Your task to perform on an android device: uninstall "Clock" Image 0: 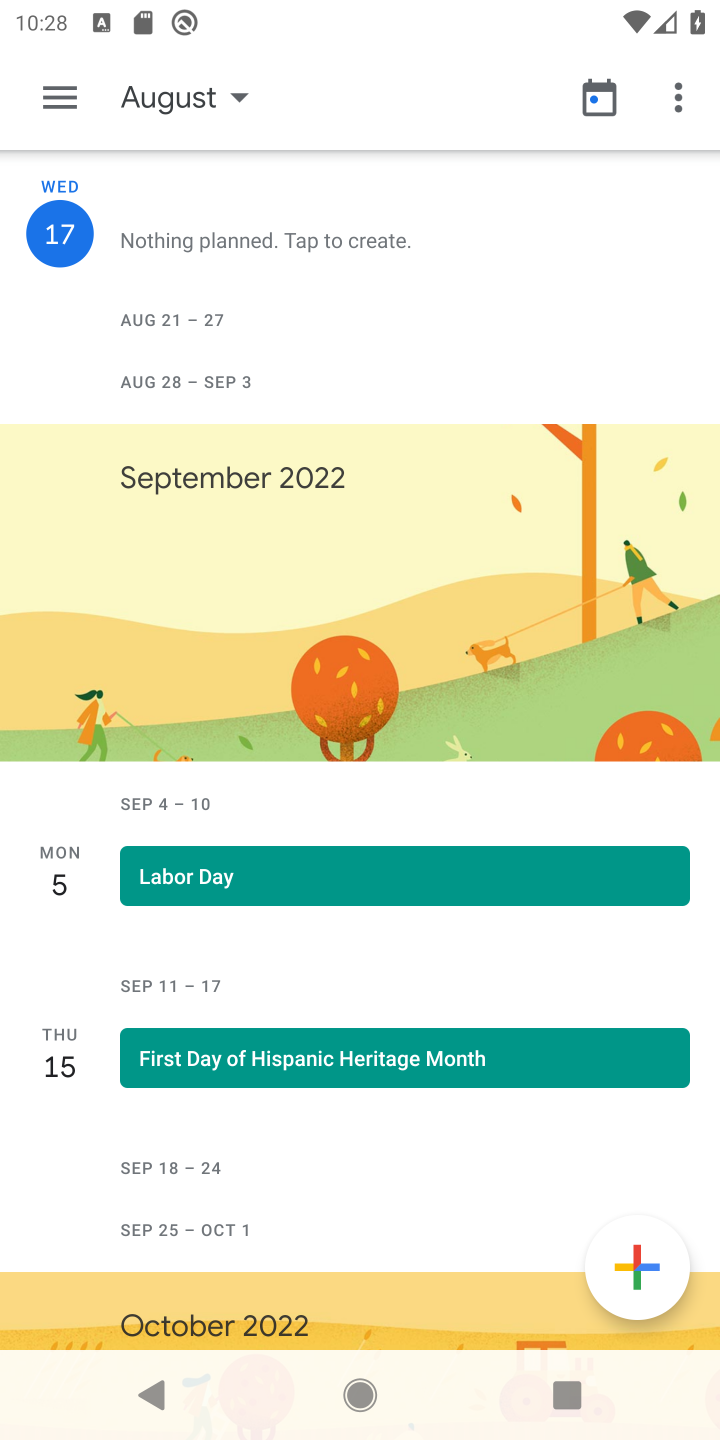
Step 0: press home button
Your task to perform on an android device: uninstall "Clock" Image 1: 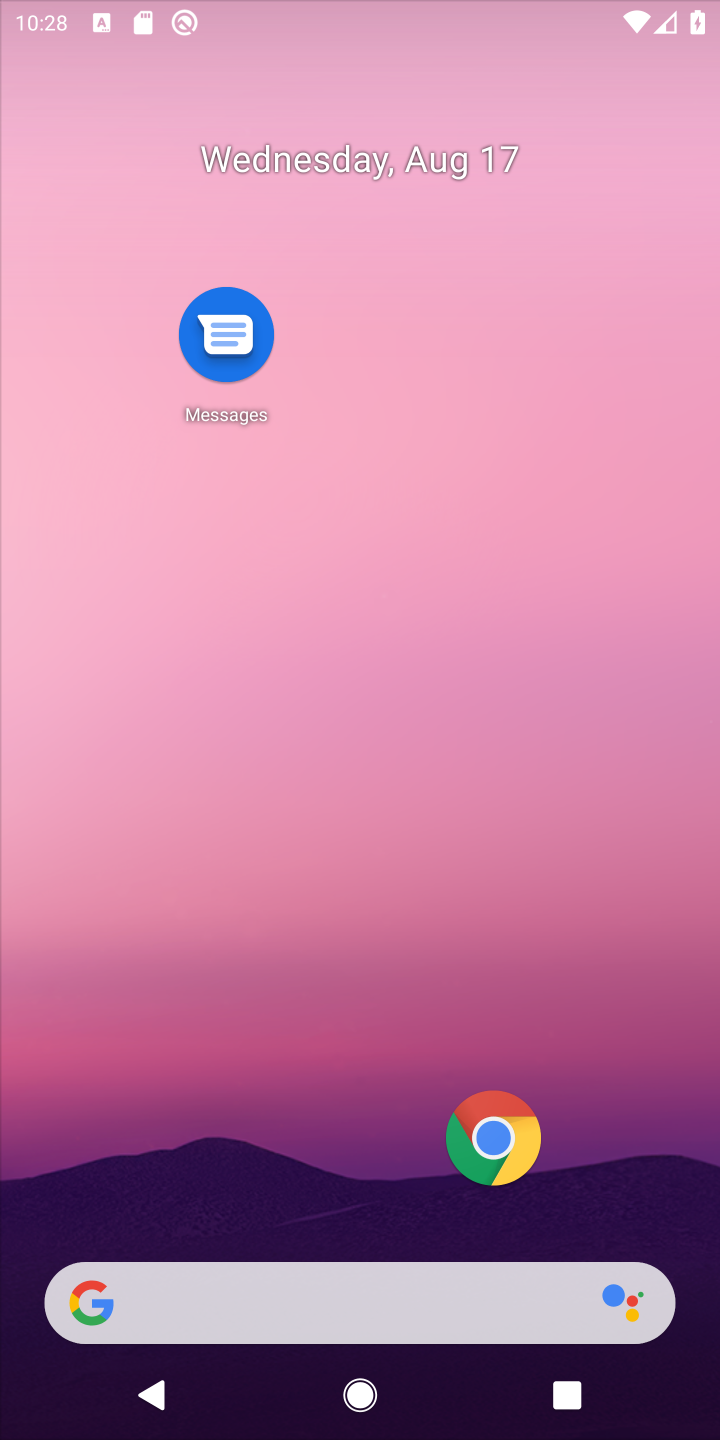
Step 1: drag from (331, 1162) to (350, 739)
Your task to perform on an android device: uninstall "Clock" Image 2: 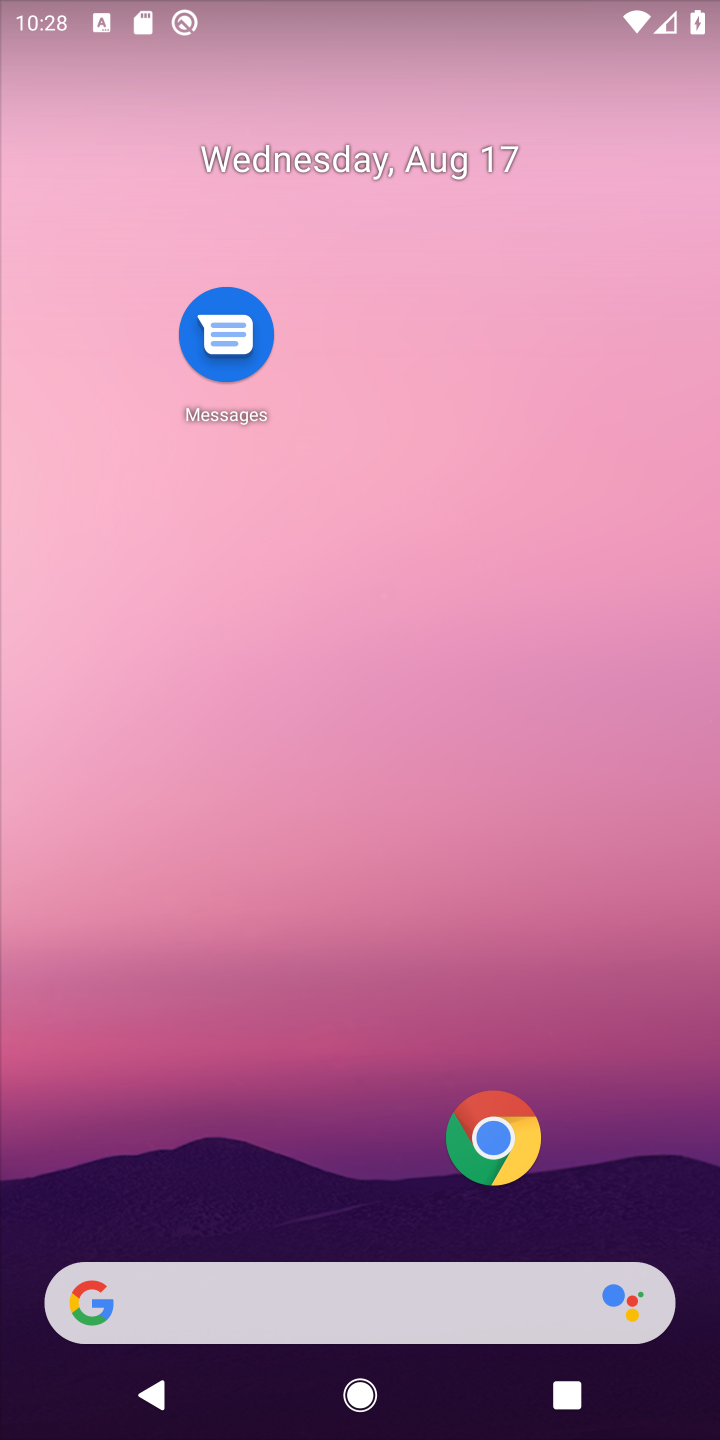
Step 2: drag from (304, 1198) to (328, 238)
Your task to perform on an android device: uninstall "Clock" Image 3: 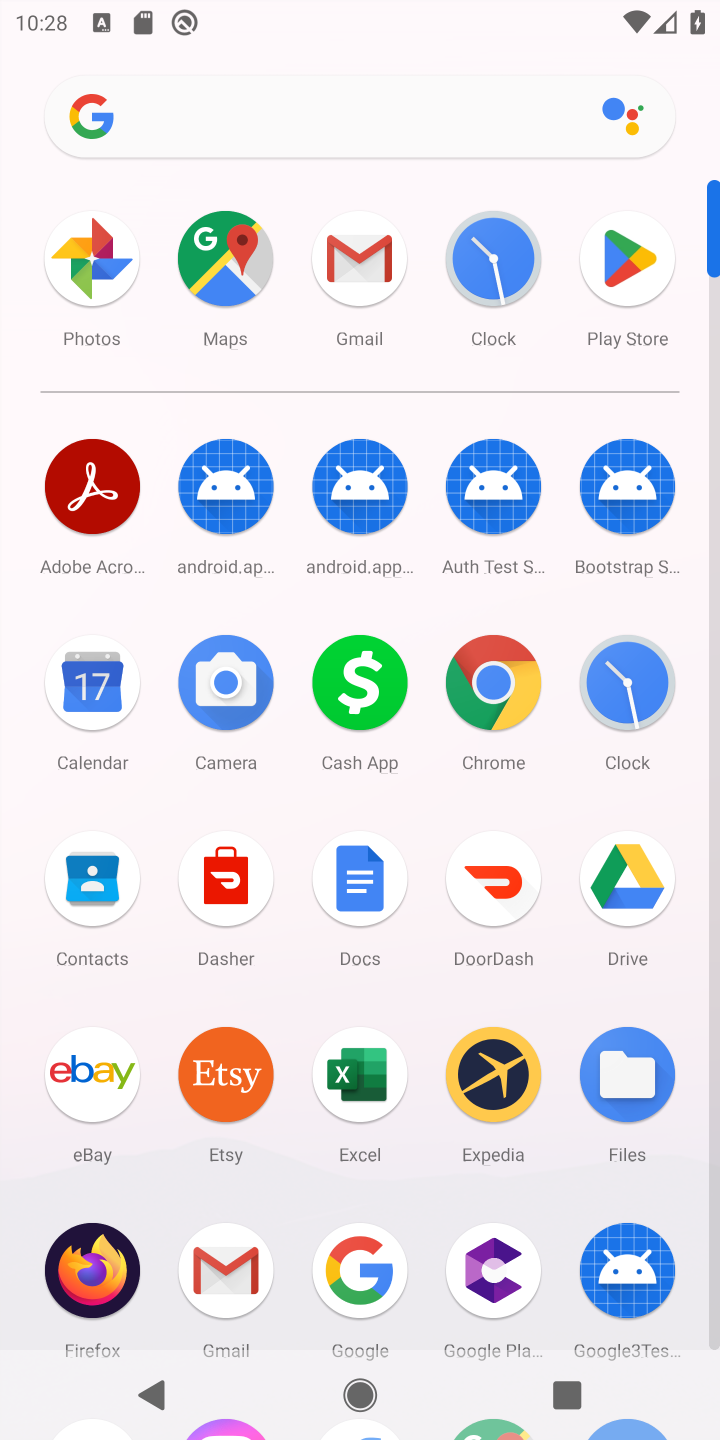
Step 3: click (636, 249)
Your task to perform on an android device: uninstall "Clock" Image 4: 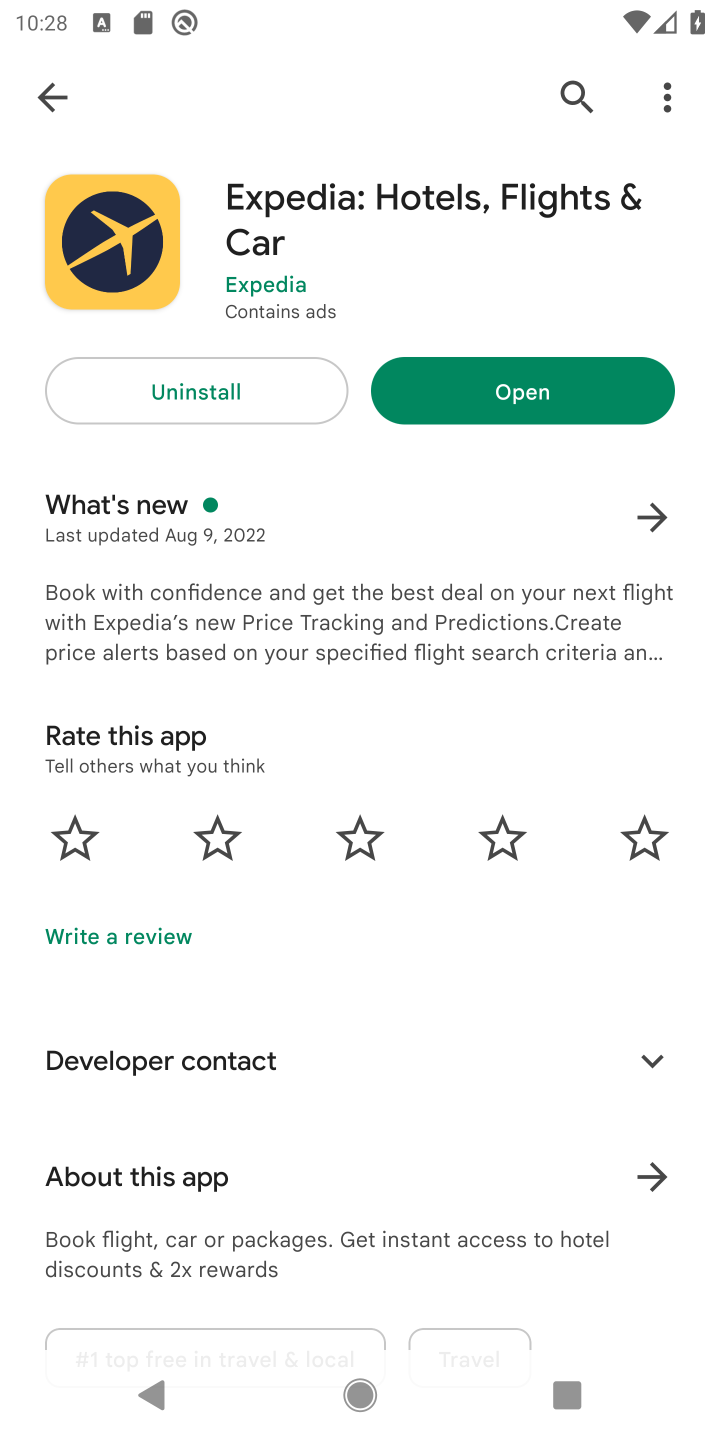
Step 4: click (51, 114)
Your task to perform on an android device: uninstall "Clock" Image 5: 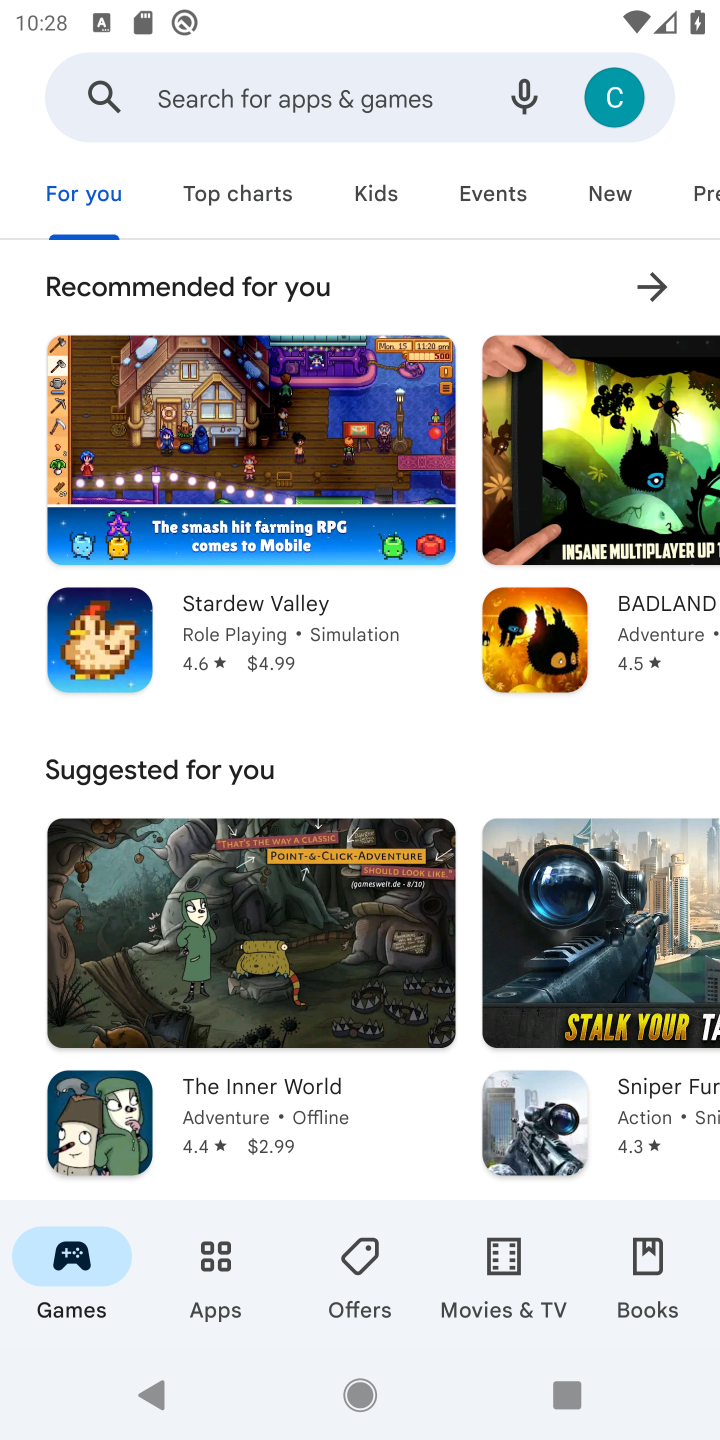
Step 5: click (223, 93)
Your task to perform on an android device: uninstall "Clock" Image 6: 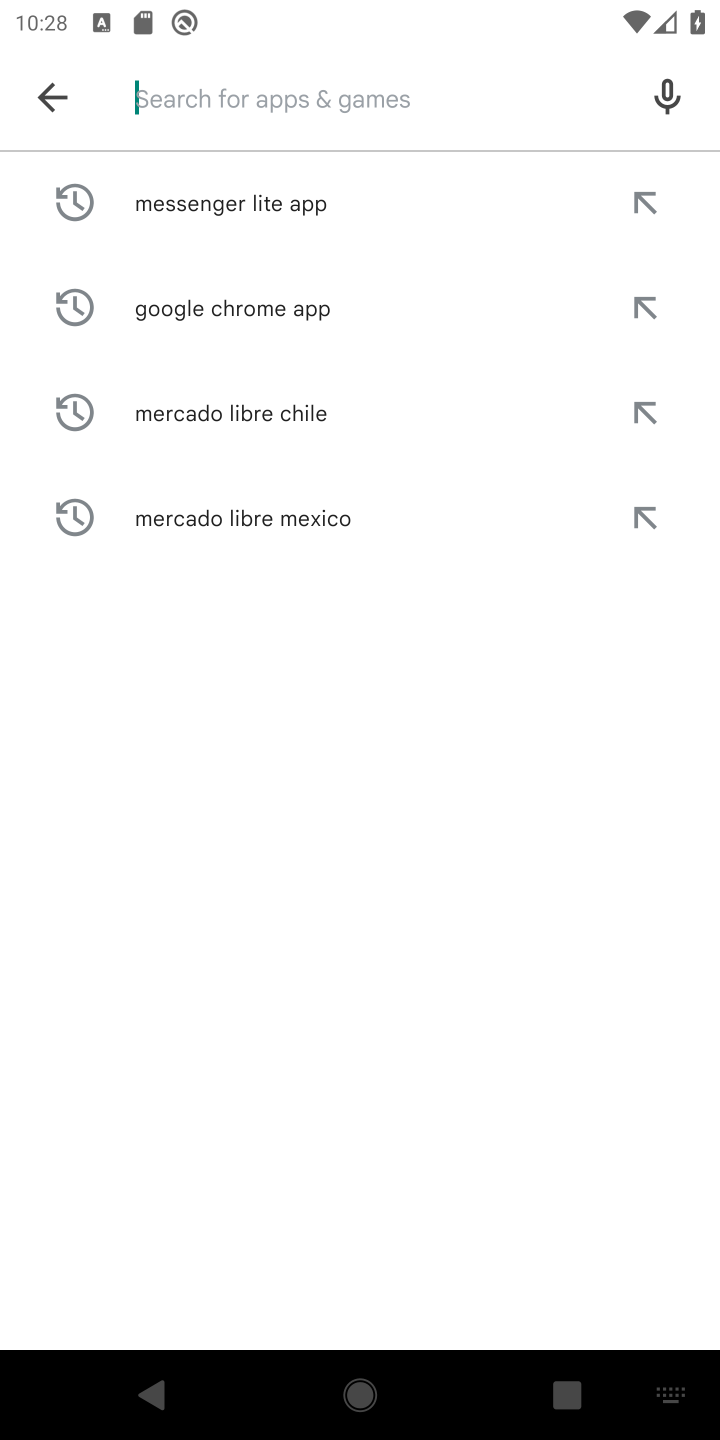
Step 6: type "Clock "
Your task to perform on an android device: uninstall "Clock" Image 7: 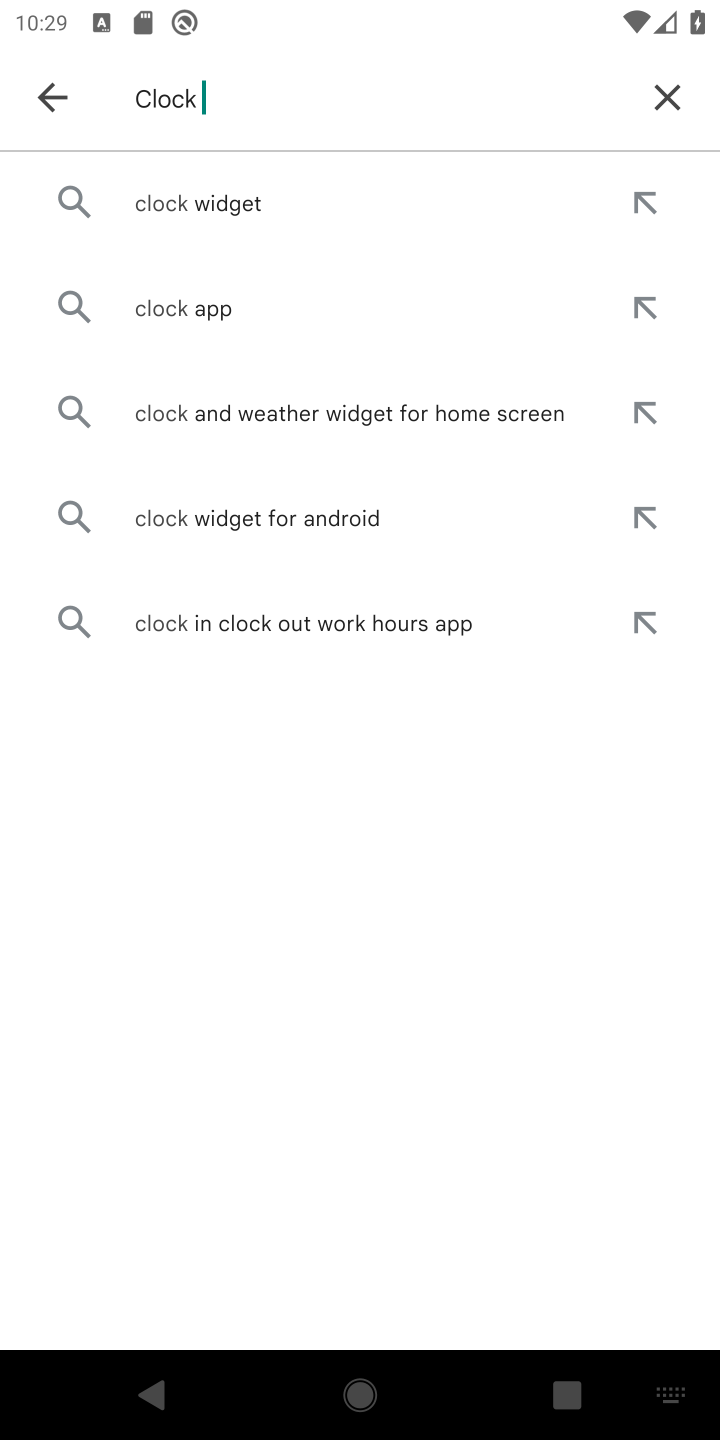
Step 7: click (176, 299)
Your task to perform on an android device: uninstall "Clock" Image 8: 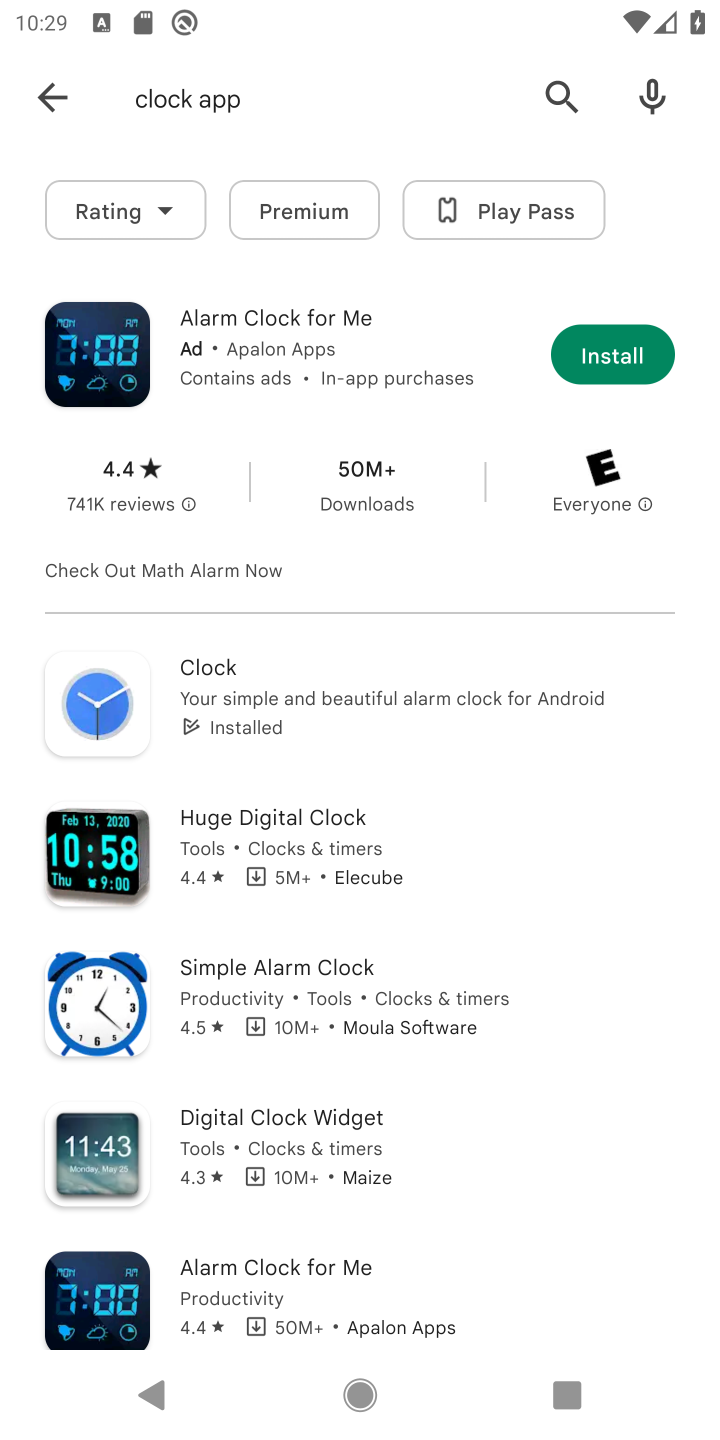
Step 8: task complete